Your task to perform on an android device: open wifi settings Image 0: 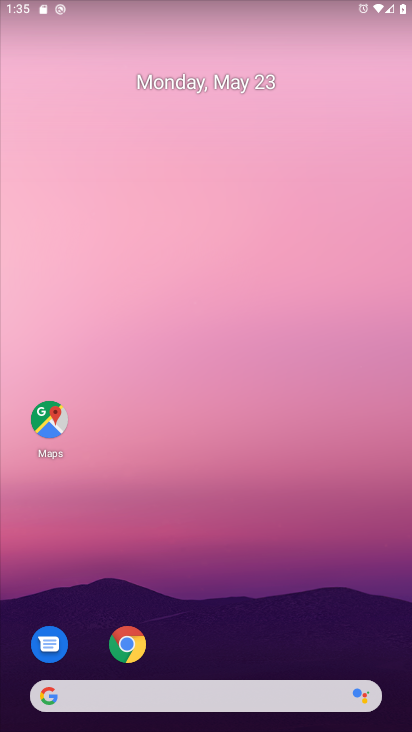
Step 0: drag from (249, 609) to (197, 299)
Your task to perform on an android device: open wifi settings Image 1: 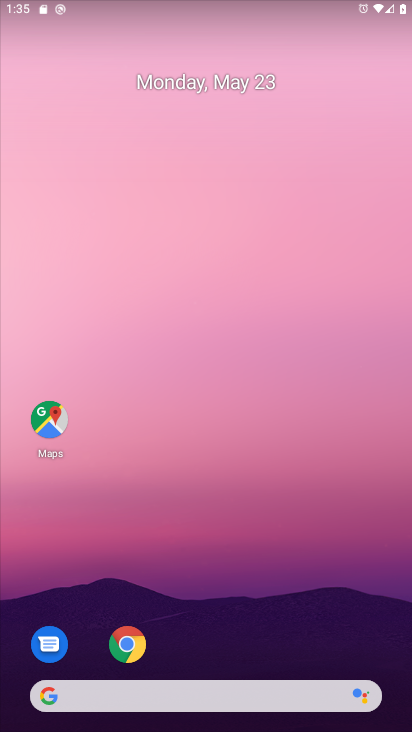
Step 1: drag from (240, 616) to (179, 39)
Your task to perform on an android device: open wifi settings Image 2: 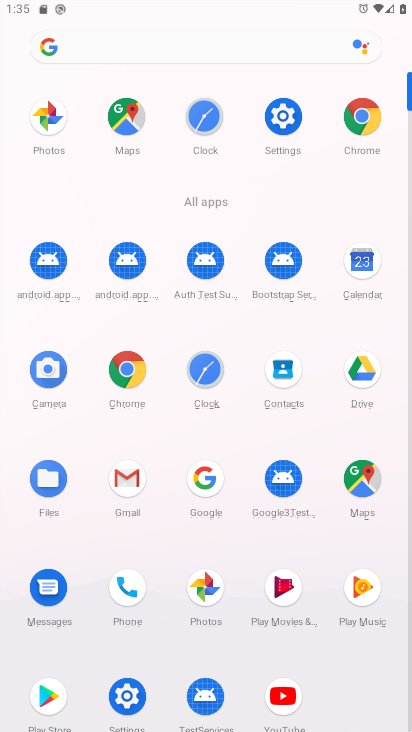
Step 2: click (292, 120)
Your task to perform on an android device: open wifi settings Image 3: 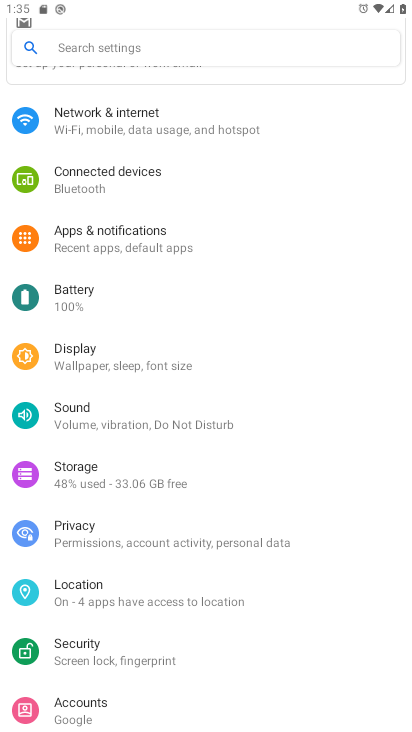
Step 3: click (144, 119)
Your task to perform on an android device: open wifi settings Image 4: 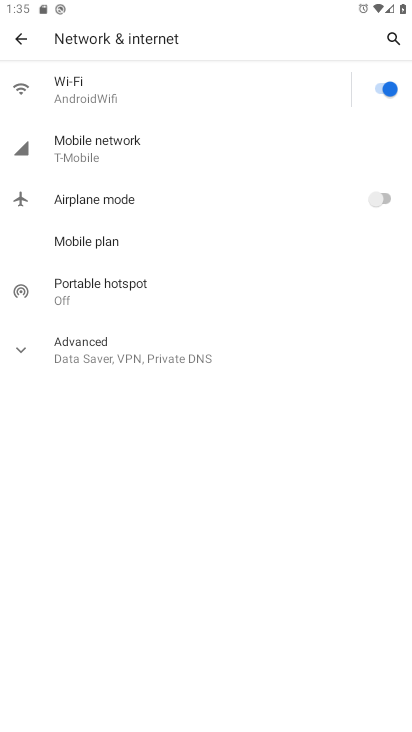
Step 4: click (157, 83)
Your task to perform on an android device: open wifi settings Image 5: 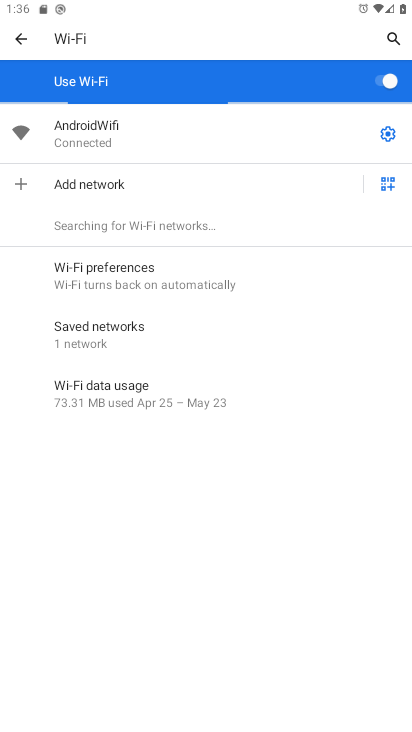
Step 5: task complete